Your task to perform on an android device: change the clock display to digital Image 0: 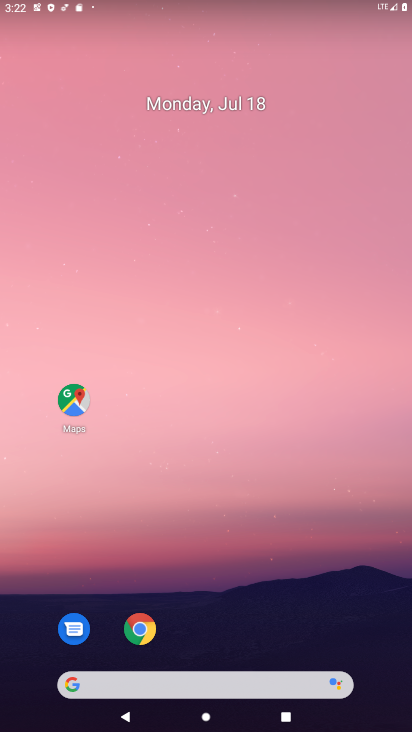
Step 0: drag from (237, 609) to (233, 112)
Your task to perform on an android device: change the clock display to digital Image 1: 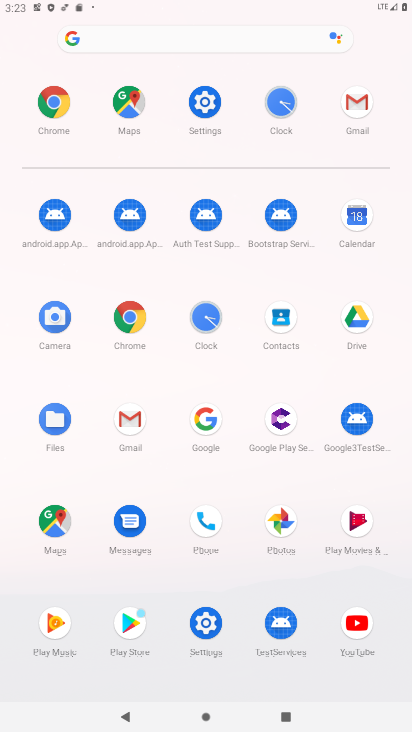
Step 1: click (218, 317)
Your task to perform on an android device: change the clock display to digital Image 2: 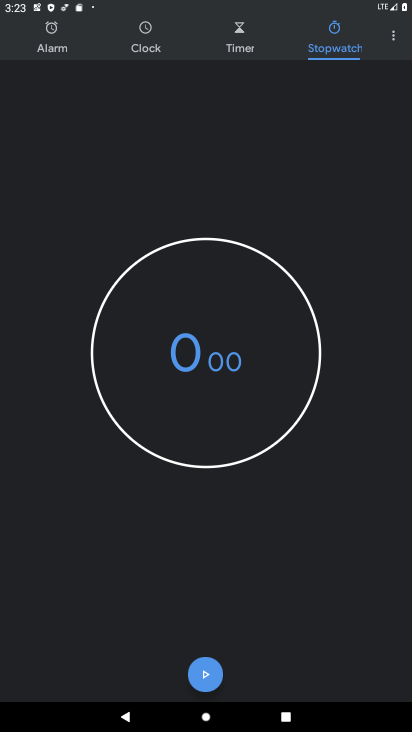
Step 2: click (394, 28)
Your task to perform on an android device: change the clock display to digital Image 3: 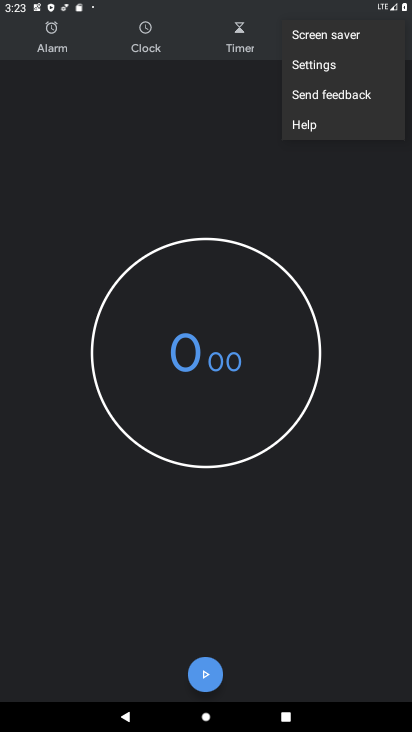
Step 3: click (312, 74)
Your task to perform on an android device: change the clock display to digital Image 4: 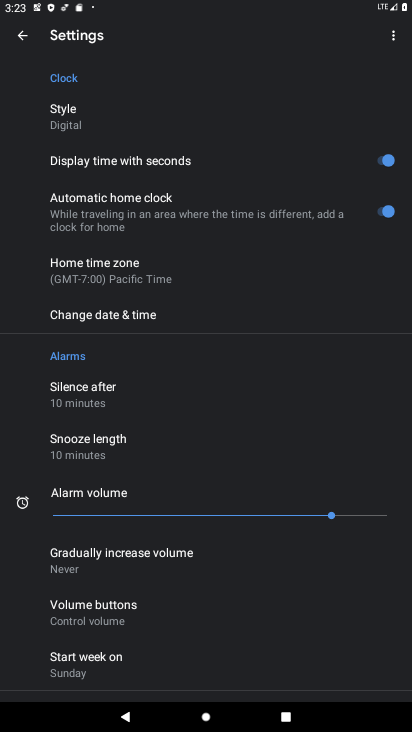
Step 4: task complete